Your task to perform on an android device: set the stopwatch Image 0: 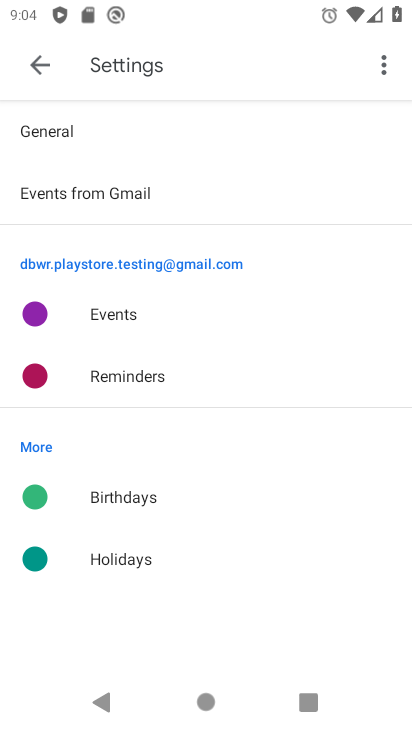
Step 0: press home button
Your task to perform on an android device: set the stopwatch Image 1: 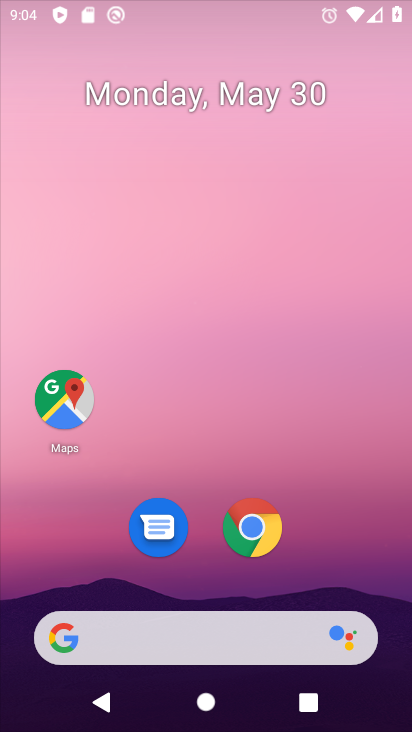
Step 1: drag from (203, 568) to (190, 102)
Your task to perform on an android device: set the stopwatch Image 2: 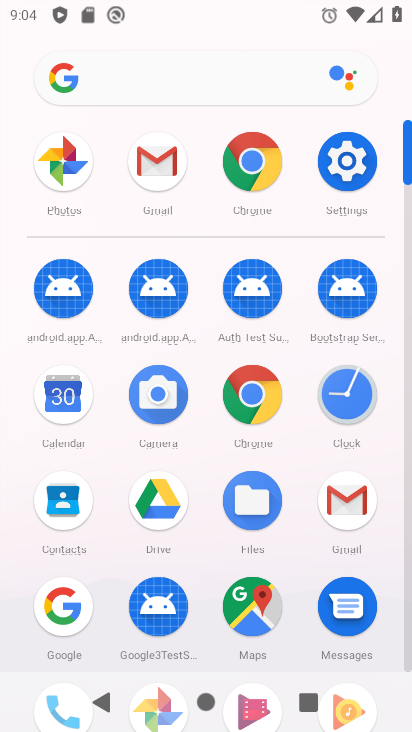
Step 2: click (352, 389)
Your task to perform on an android device: set the stopwatch Image 3: 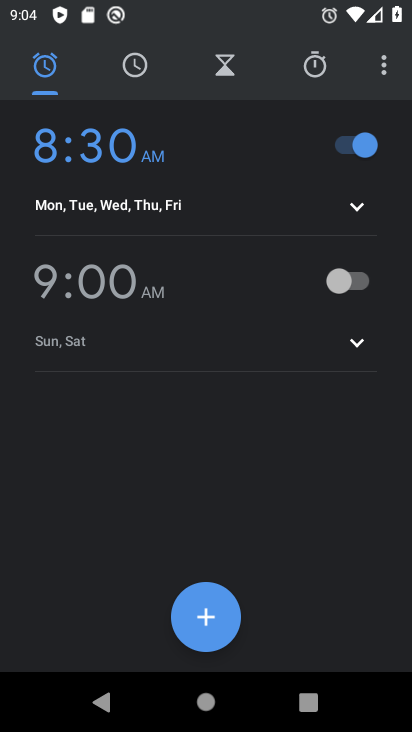
Step 3: click (324, 60)
Your task to perform on an android device: set the stopwatch Image 4: 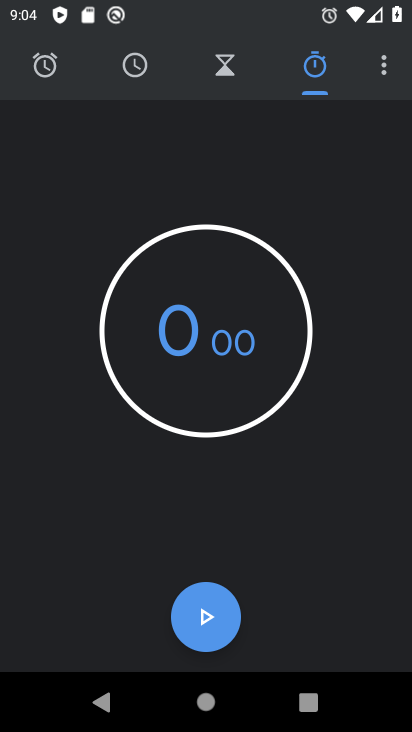
Step 4: click (224, 612)
Your task to perform on an android device: set the stopwatch Image 5: 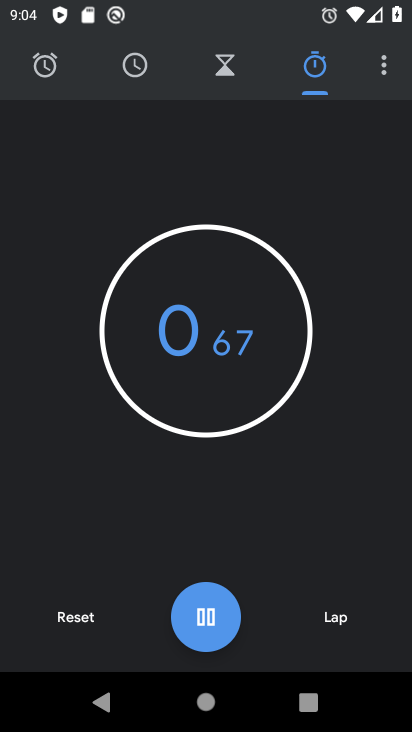
Step 5: task complete